Your task to perform on an android device: Open Yahoo.com Image 0: 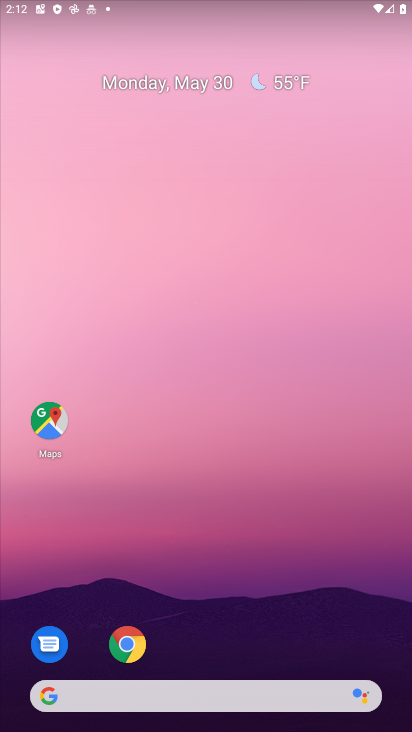
Step 0: drag from (225, 643) to (303, 78)
Your task to perform on an android device: Open Yahoo.com Image 1: 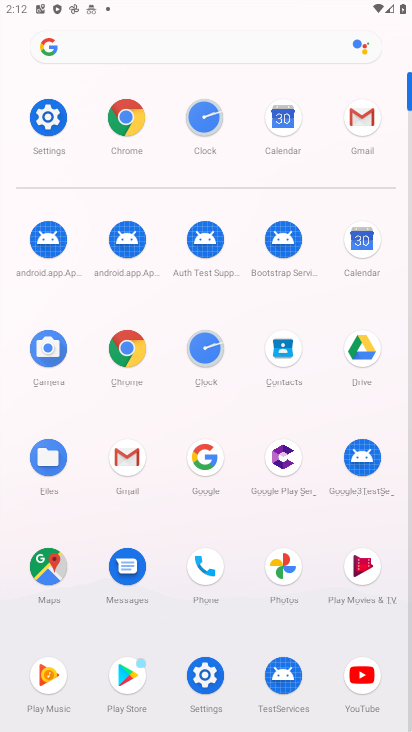
Step 1: click (176, 51)
Your task to perform on an android device: Open Yahoo.com Image 2: 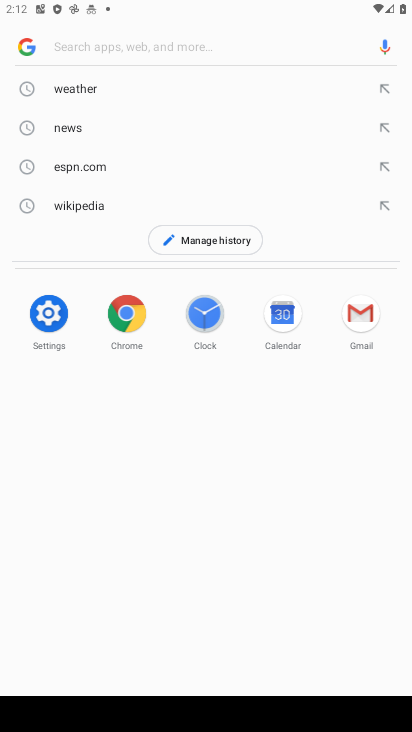
Step 2: type "yahoo.com"
Your task to perform on an android device: Open Yahoo.com Image 3: 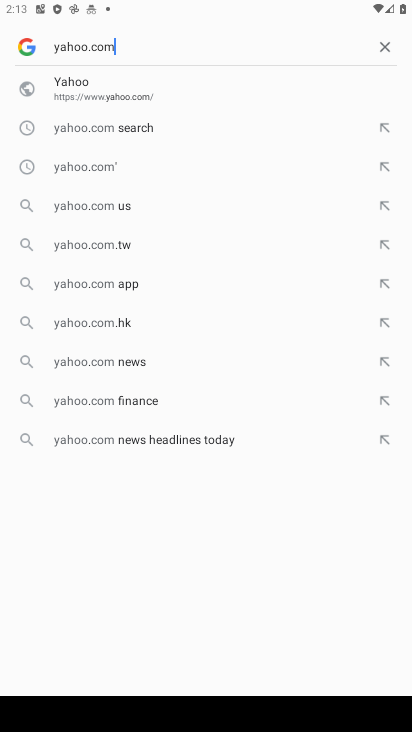
Step 3: click (117, 77)
Your task to perform on an android device: Open Yahoo.com Image 4: 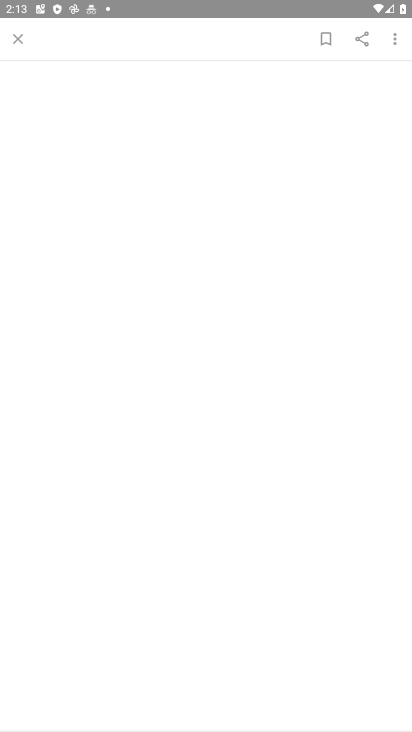
Step 4: task complete